Your task to perform on an android device: Open wifi settings Image 0: 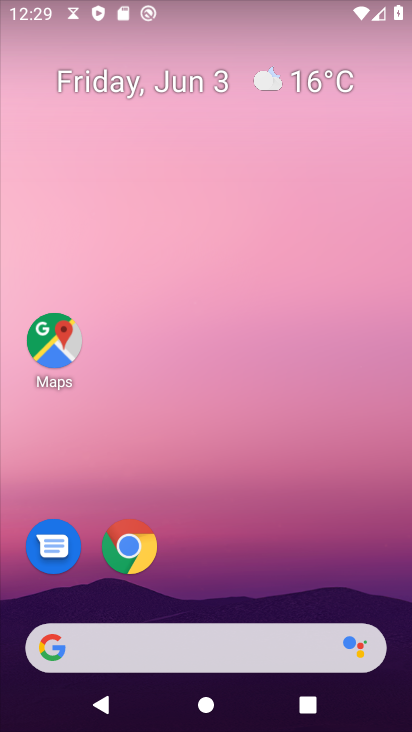
Step 0: drag from (83, 5) to (242, 524)
Your task to perform on an android device: Open wifi settings Image 1: 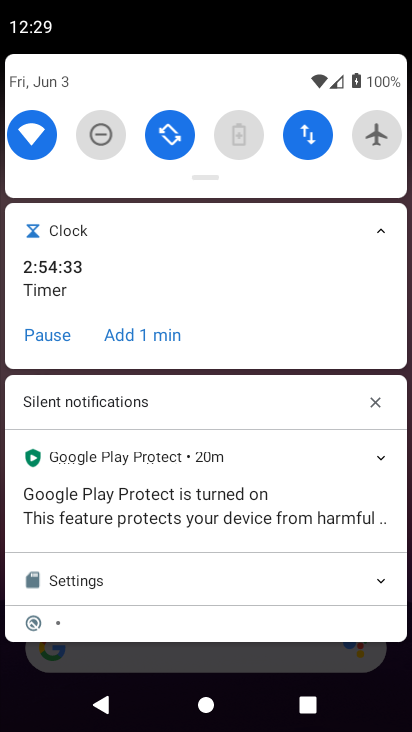
Step 1: click (44, 127)
Your task to perform on an android device: Open wifi settings Image 2: 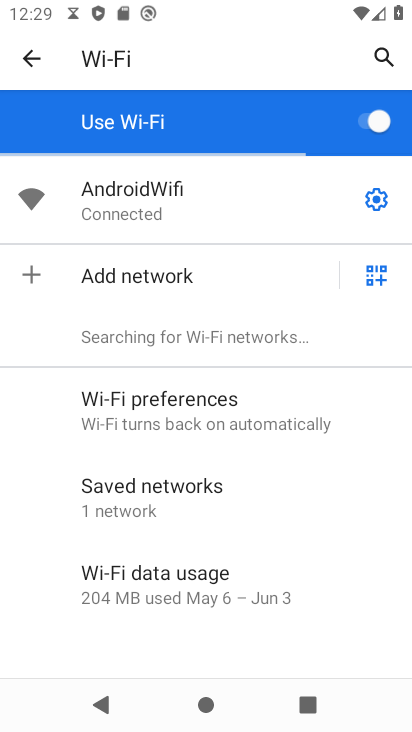
Step 2: task complete